Your task to perform on an android device: change the clock display to show seconds Image 0: 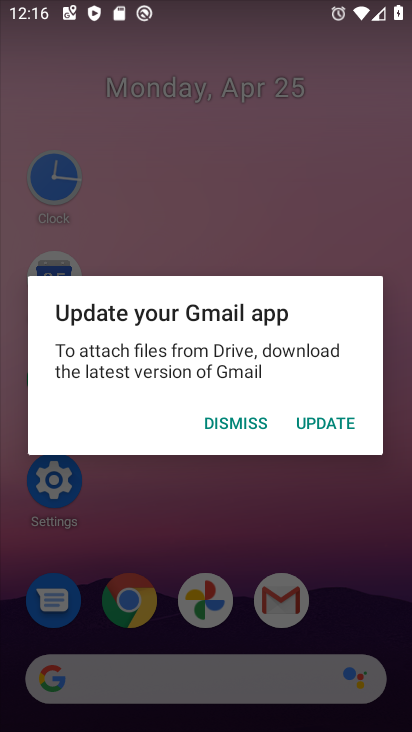
Step 0: press home button
Your task to perform on an android device: change the clock display to show seconds Image 1: 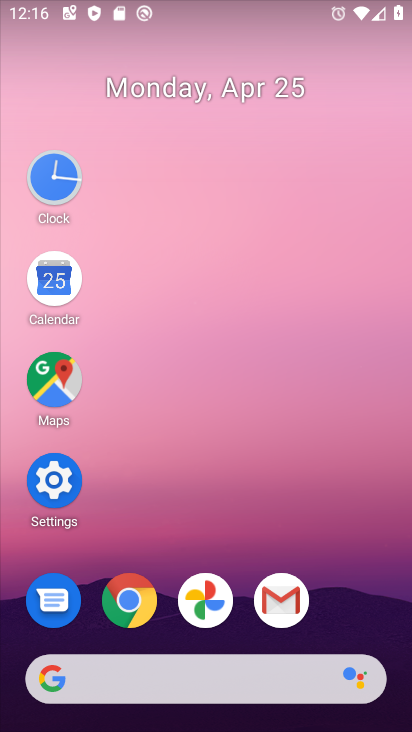
Step 1: click (45, 173)
Your task to perform on an android device: change the clock display to show seconds Image 2: 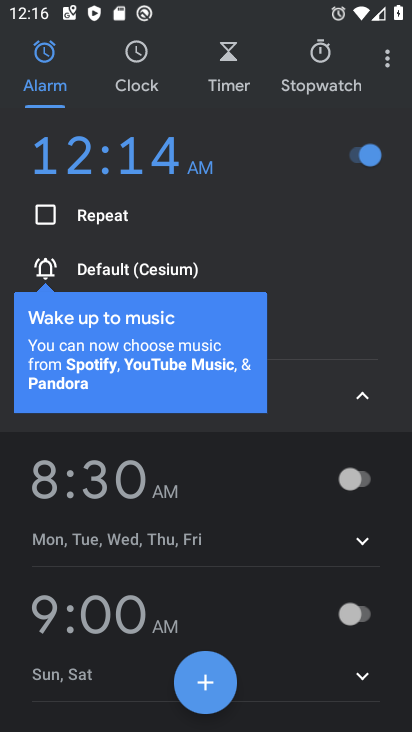
Step 2: click (386, 60)
Your task to perform on an android device: change the clock display to show seconds Image 3: 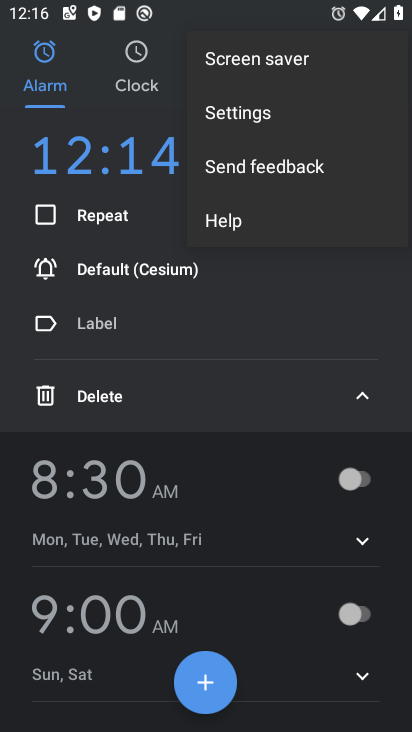
Step 3: click (238, 117)
Your task to perform on an android device: change the clock display to show seconds Image 4: 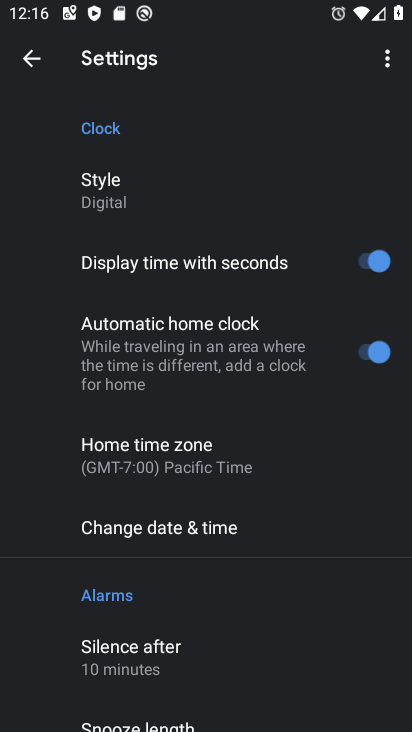
Step 4: task complete